Your task to perform on an android device: set the timer Image 0: 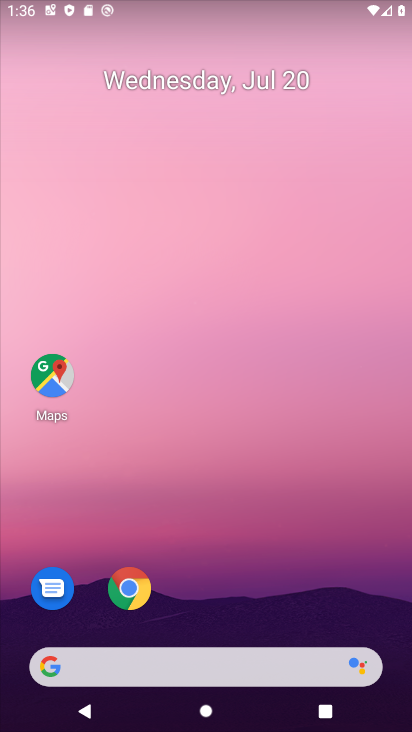
Step 0: drag from (389, 634) to (227, 16)
Your task to perform on an android device: set the timer Image 1: 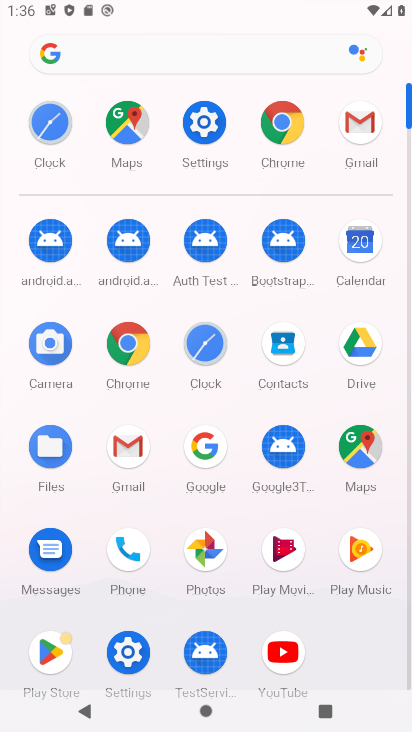
Step 1: click (213, 356)
Your task to perform on an android device: set the timer Image 2: 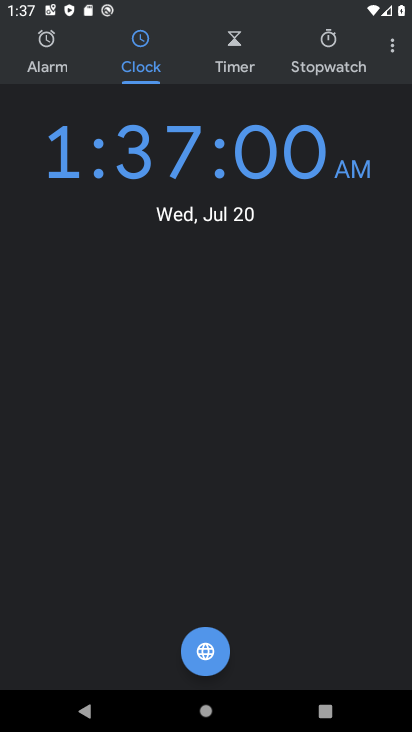
Step 2: click (242, 51)
Your task to perform on an android device: set the timer Image 3: 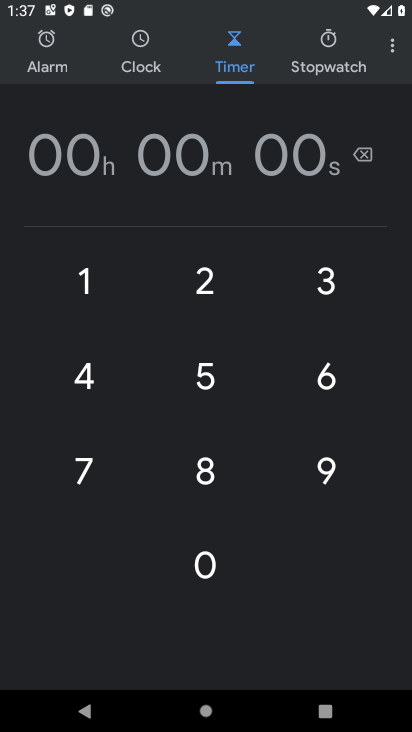
Step 3: click (214, 284)
Your task to perform on an android device: set the timer Image 4: 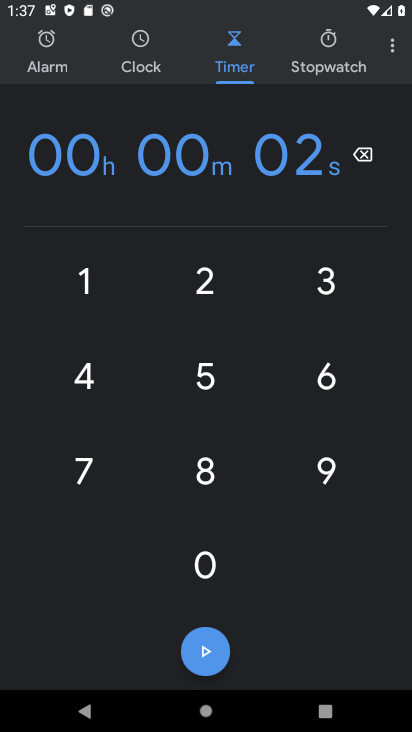
Step 4: click (210, 281)
Your task to perform on an android device: set the timer Image 5: 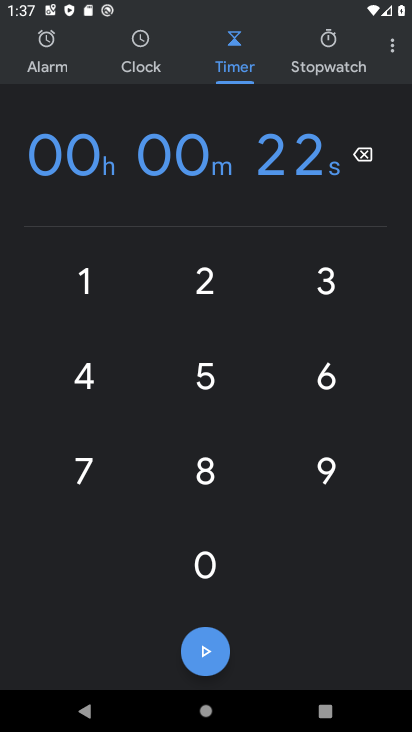
Step 5: click (210, 281)
Your task to perform on an android device: set the timer Image 6: 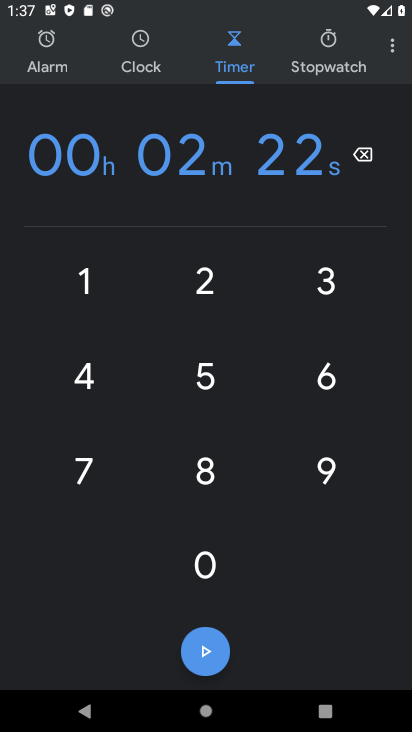
Step 6: click (210, 281)
Your task to perform on an android device: set the timer Image 7: 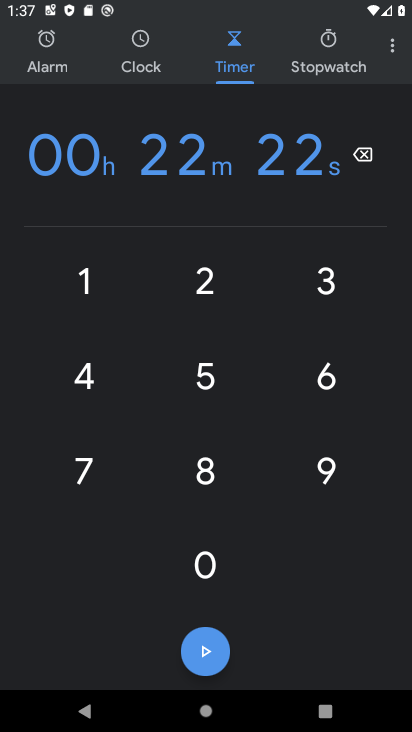
Step 7: click (210, 281)
Your task to perform on an android device: set the timer Image 8: 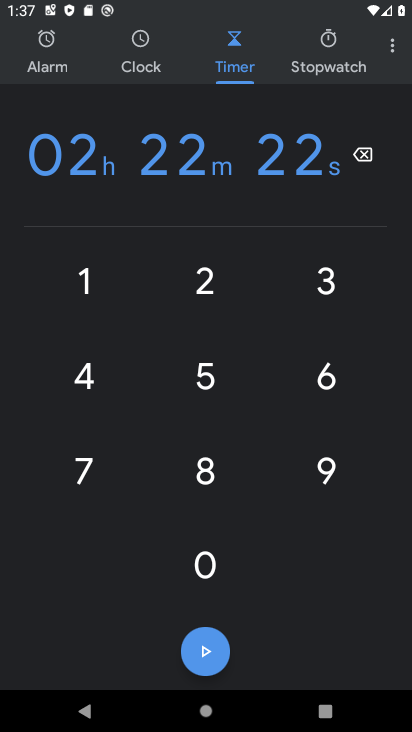
Step 8: task complete